Your task to perform on an android device: Open Google Chrome Image 0: 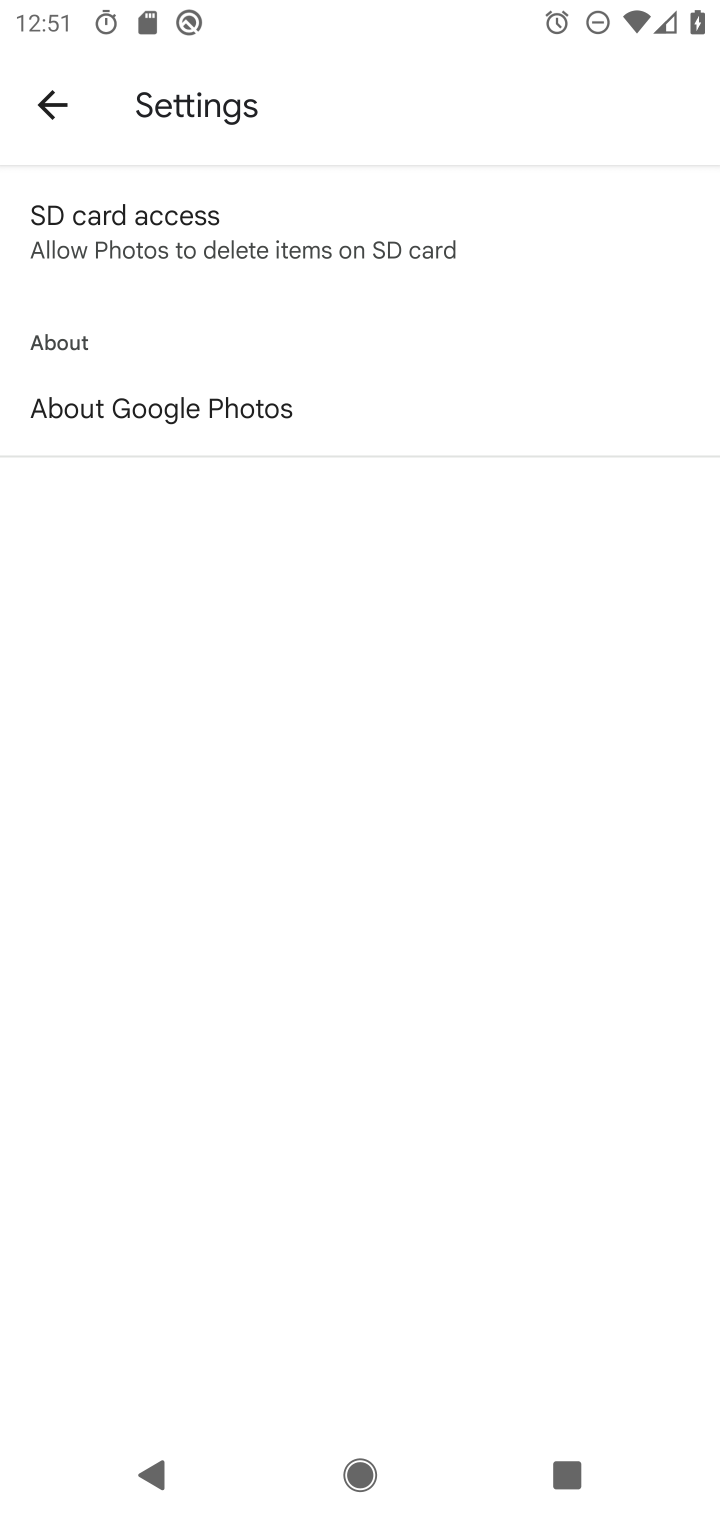
Step 0: press home button
Your task to perform on an android device: Open Google Chrome Image 1: 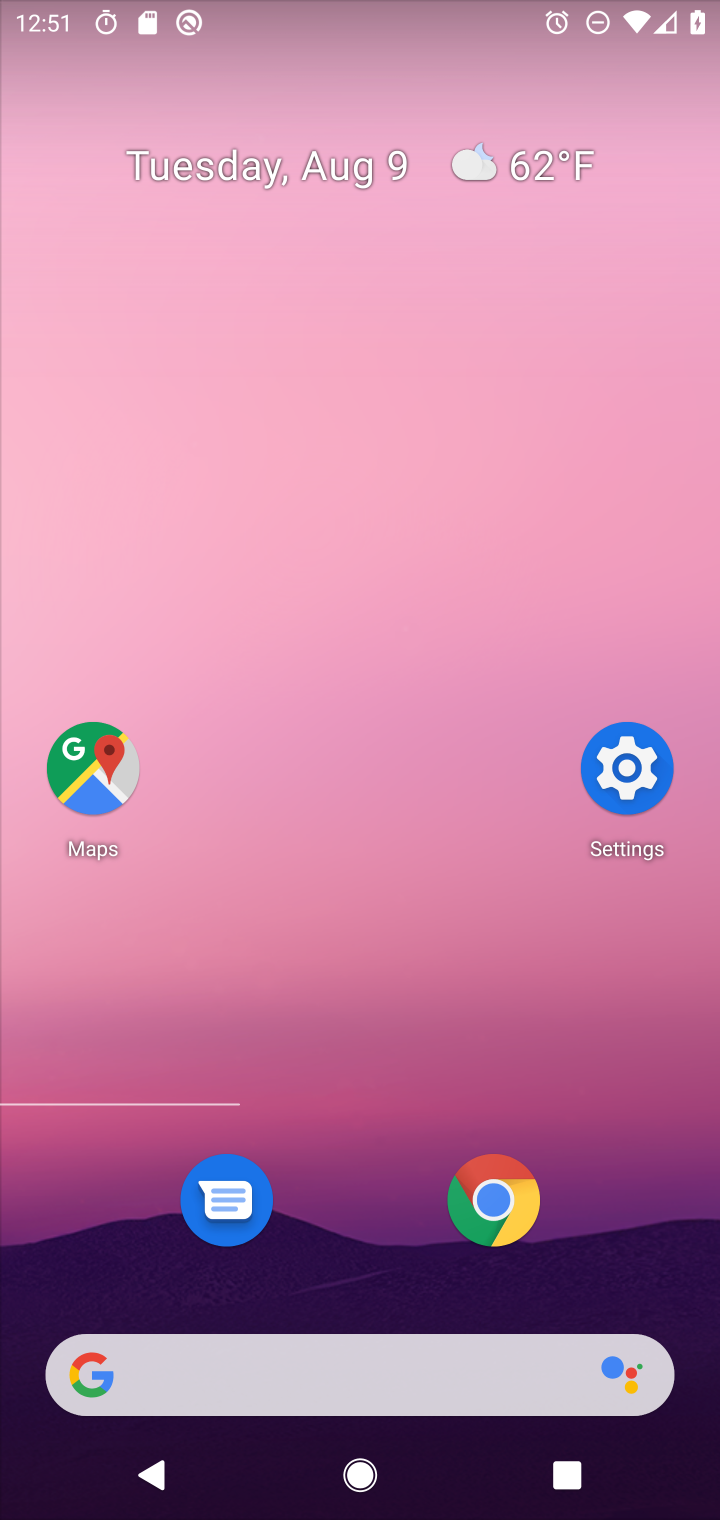
Step 1: click (495, 1202)
Your task to perform on an android device: Open Google Chrome Image 2: 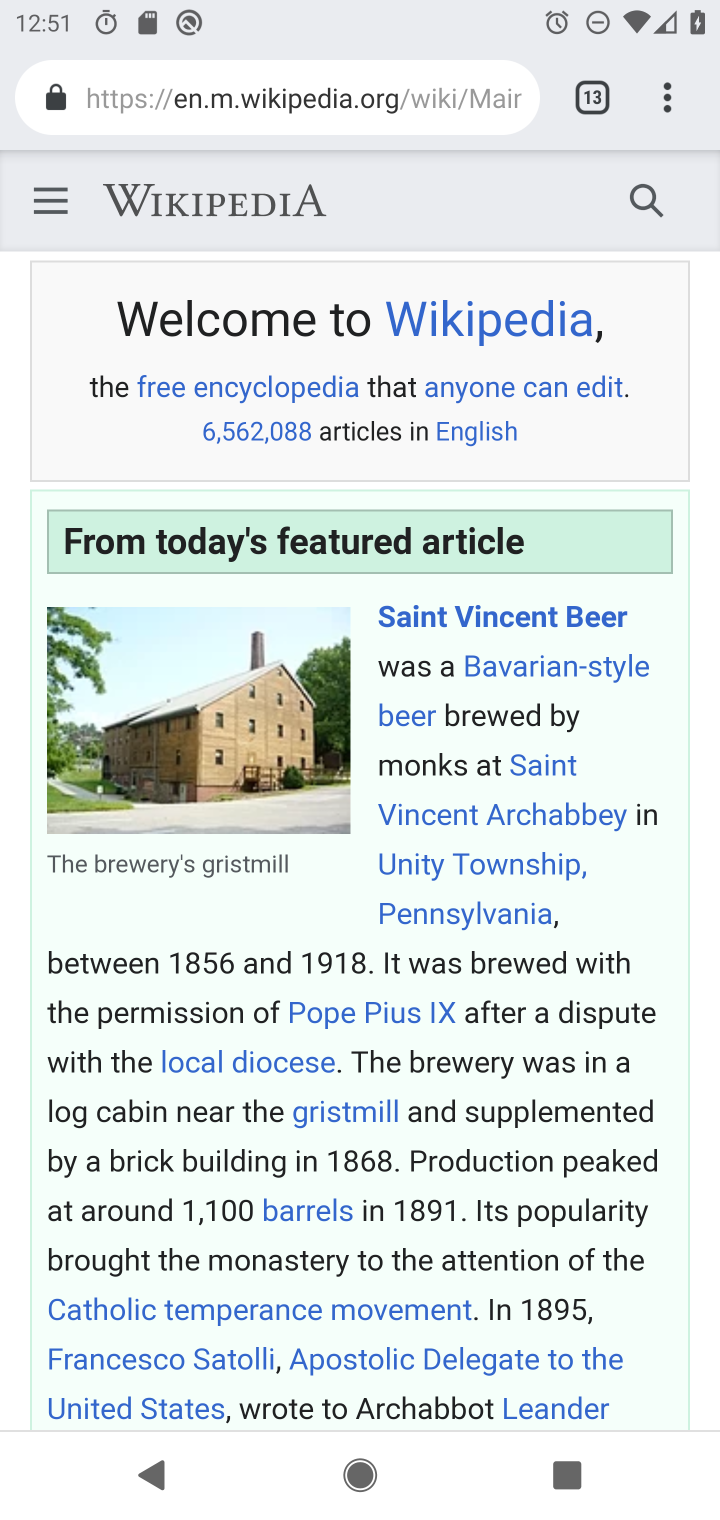
Step 2: click (495, 1210)
Your task to perform on an android device: Open Google Chrome Image 3: 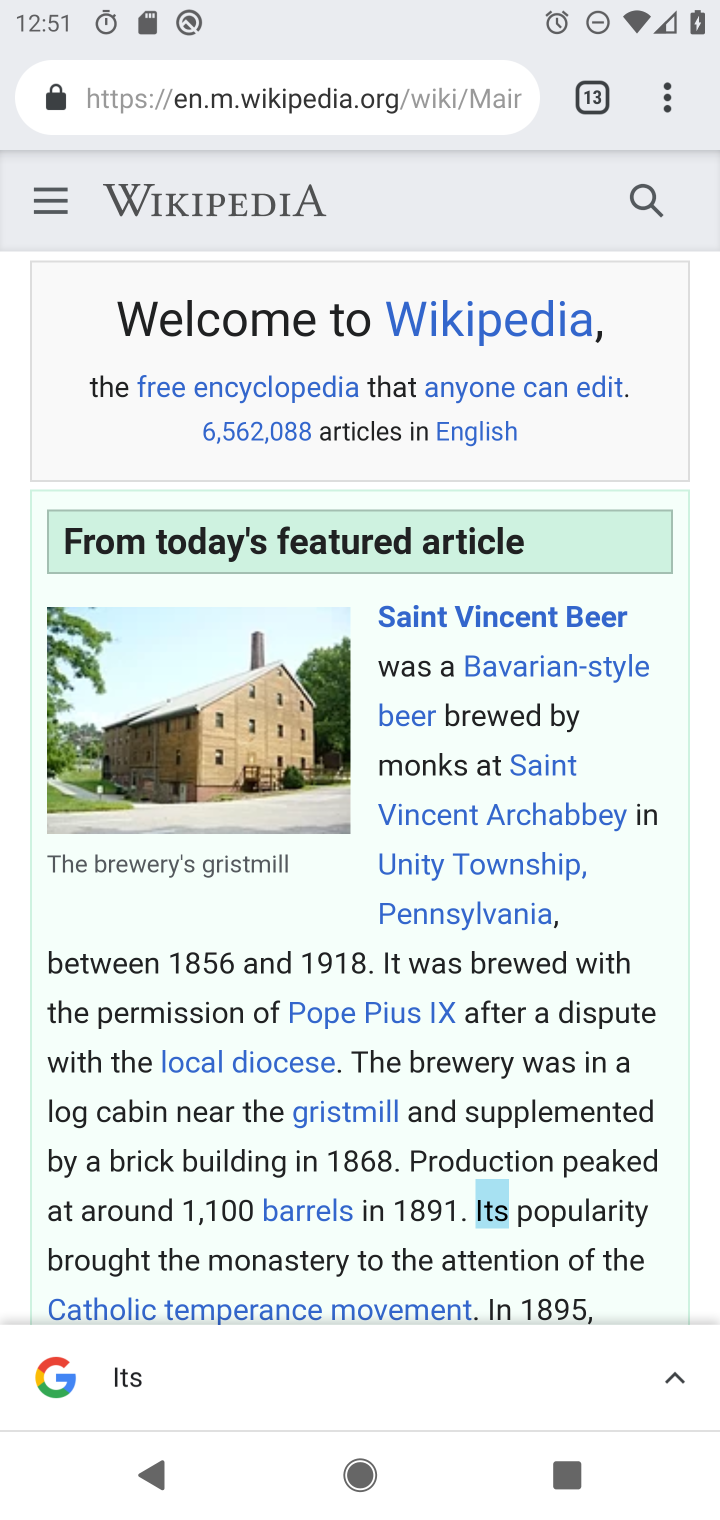
Step 3: click (648, 907)
Your task to perform on an android device: Open Google Chrome Image 4: 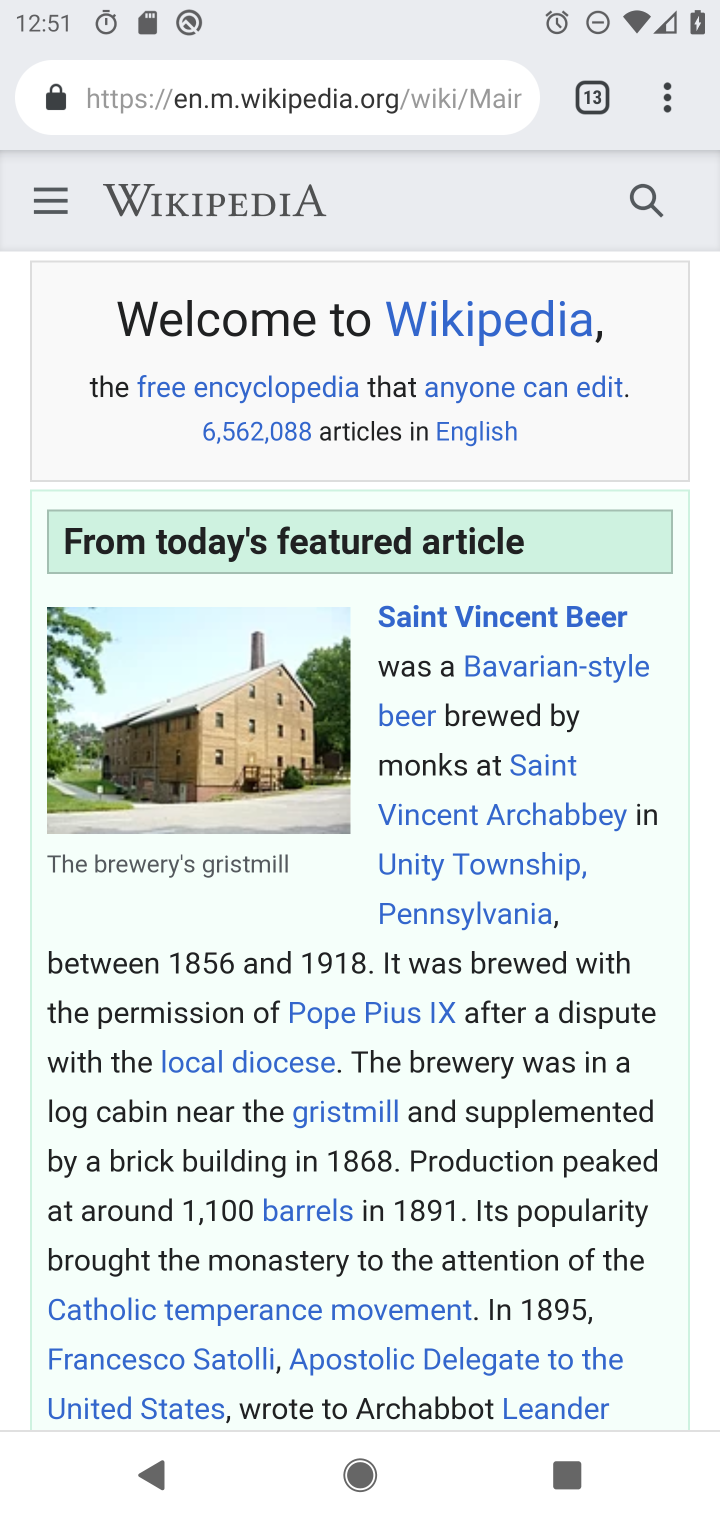
Step 4: task complete